Your task to perform on an android device: Open Android settings Image 0: 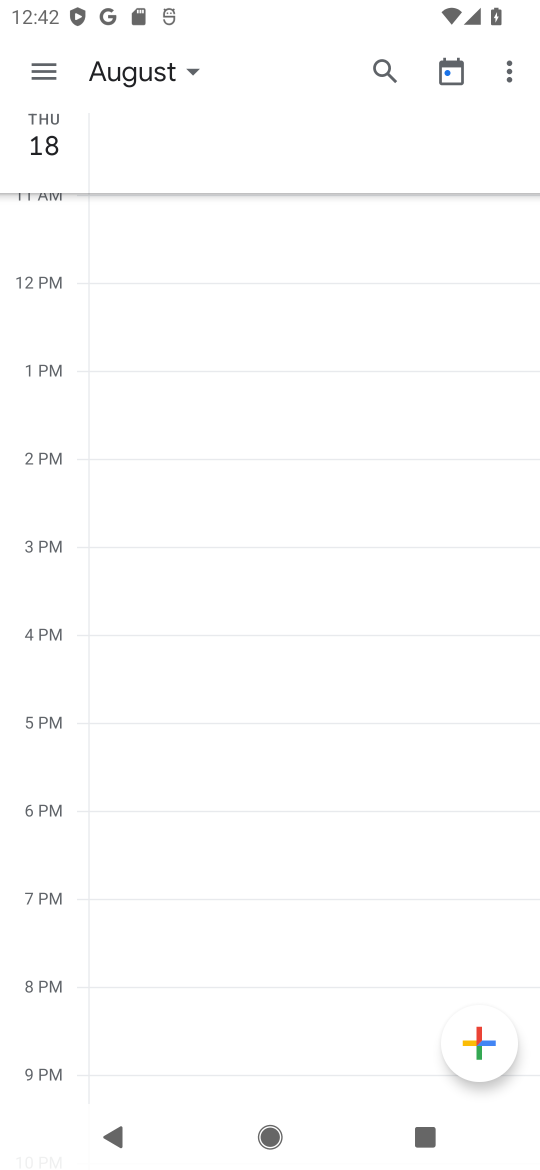
Step 0: press home button
Your task to perform on an android device: Open Android settings Image 1: 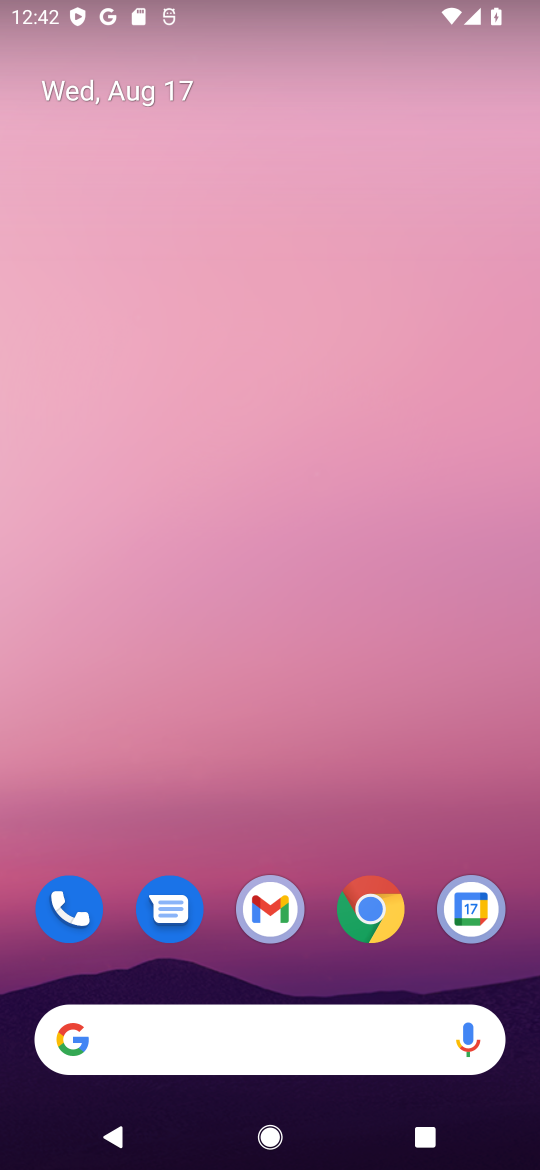
Step 1: drag from (300, 829) to (188, 185)
Your task to perform on an android device: Open Android settings Image 2: 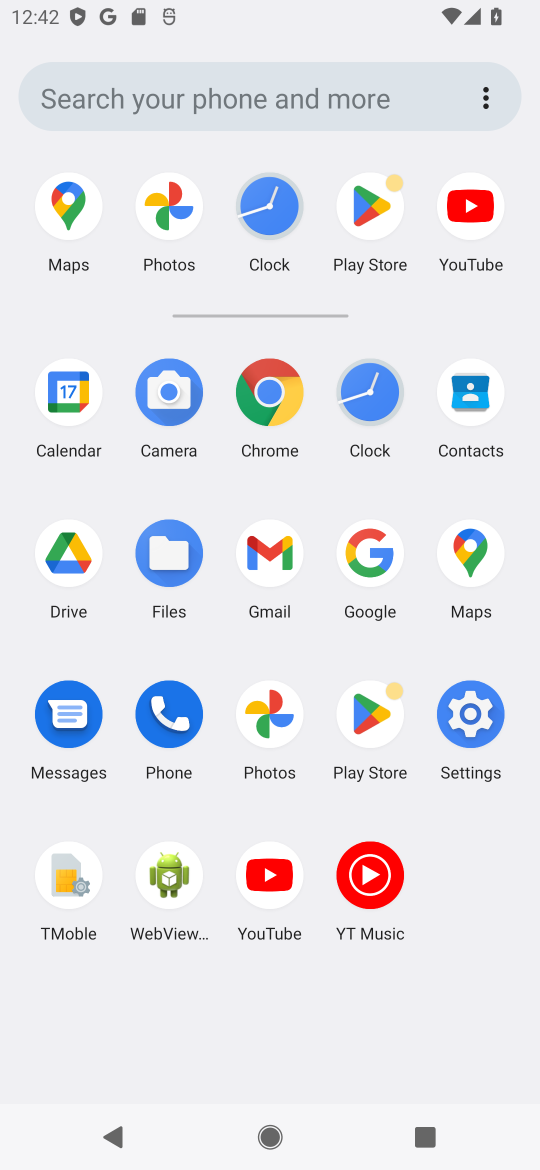
Step 2: click (468, 720)
Your task to perform on an android device: Open Android settings Image 3: 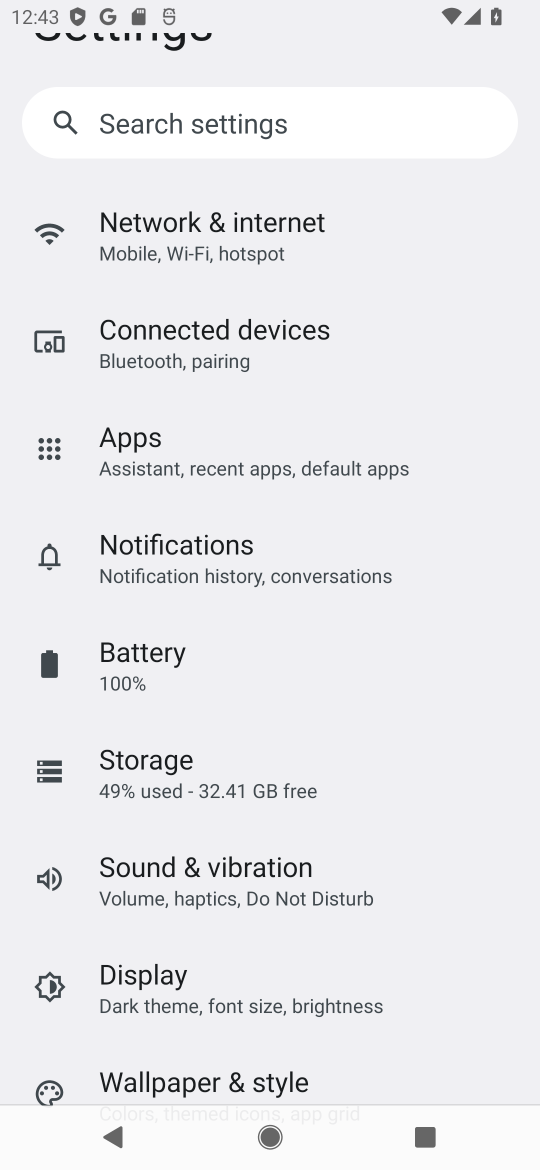
Step 3: task complete